Your task to perform on an android device: turn on wifi Image 0: 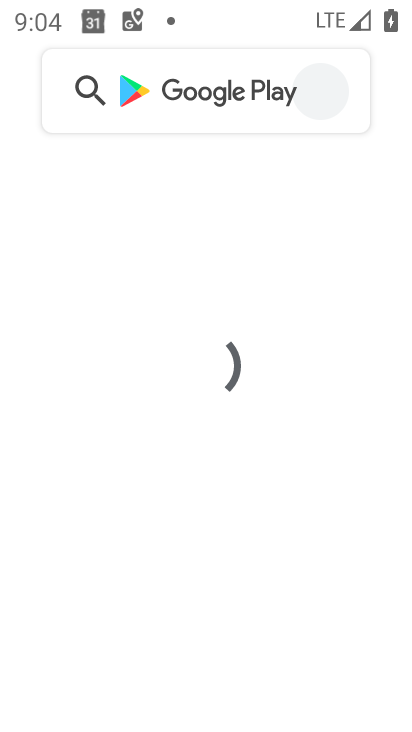
Step 0: drag from (324, 546) to (334, 275)
Your task to perform on an android device: turn on wifi Image 1: 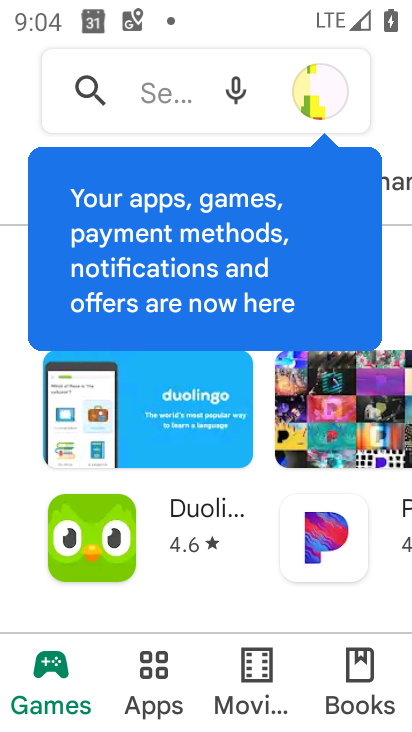
Step 1: press home button
Your task to perform on an android device: turn on wifi Image 2: 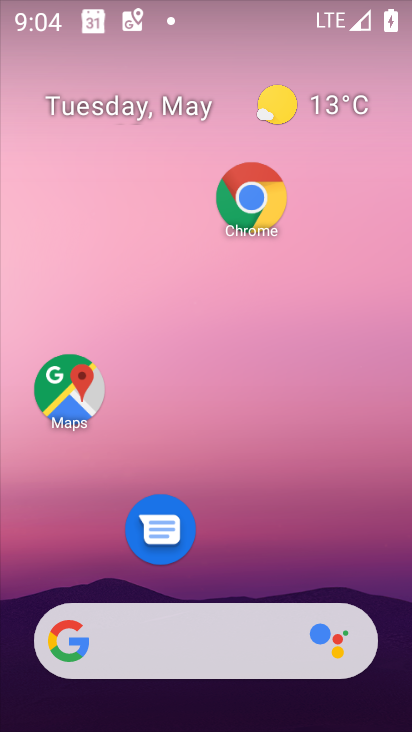
Step 2: drag from (332, 493) to (360, 261)
Your task to perform on an android device: turn on wifi Image 3: 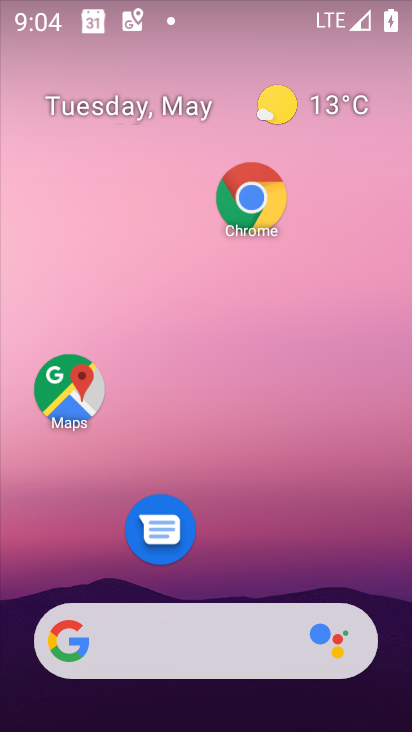
Step 3: drag from (267, 515) to (259, 50)
Your task to perform on an android device: turn on wifi Image 4: 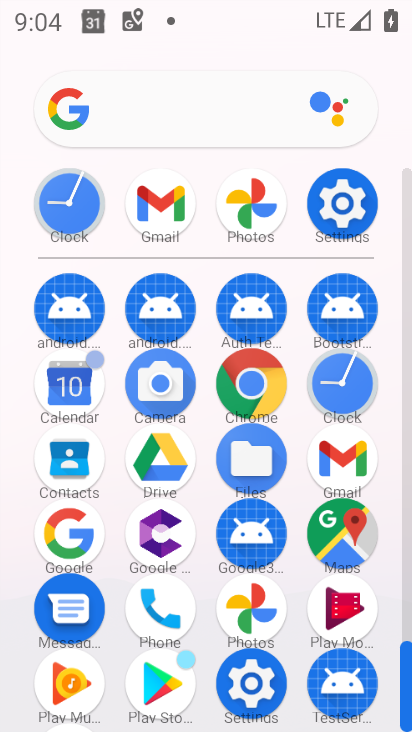
Step 4: click (325, 205)
Your task to perform on an android device: turn on wifi Image 5: 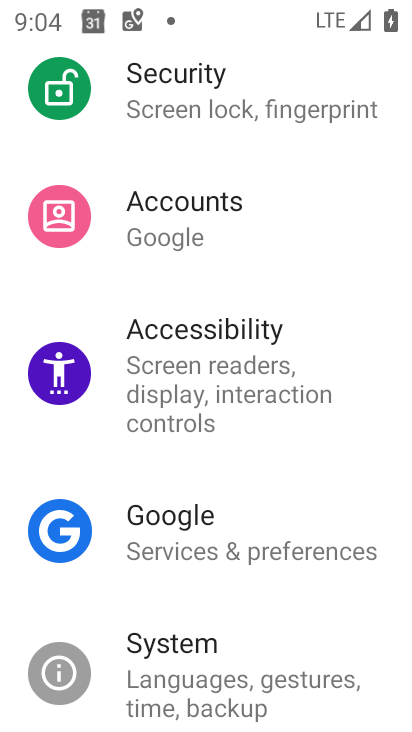
Step 5: drag from (258, 351) to (207, 676)
Your task to perform on an android device: turn on wifi Image 6: 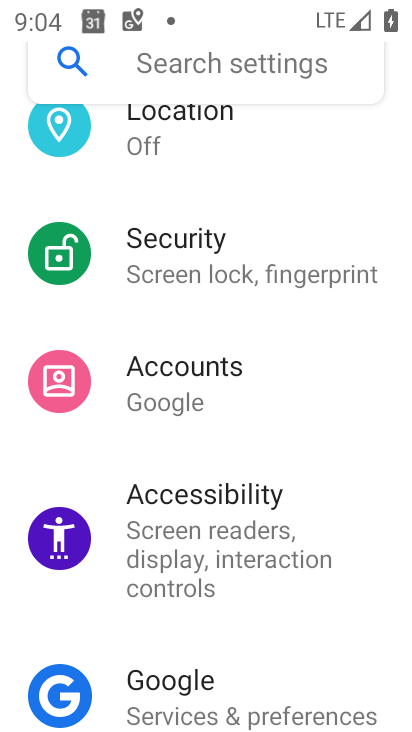
Step 6: drag from (277, 290) to (280, 700)
Your task to perform on an android device: turn on wifi Image 7: 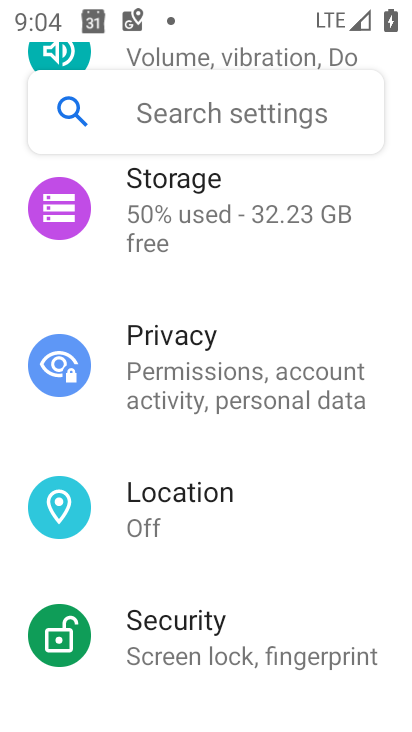
Step 7: drag from (304, 248) to (306, 627)
Your task to perform on an android device: turn on wifi Image 8: 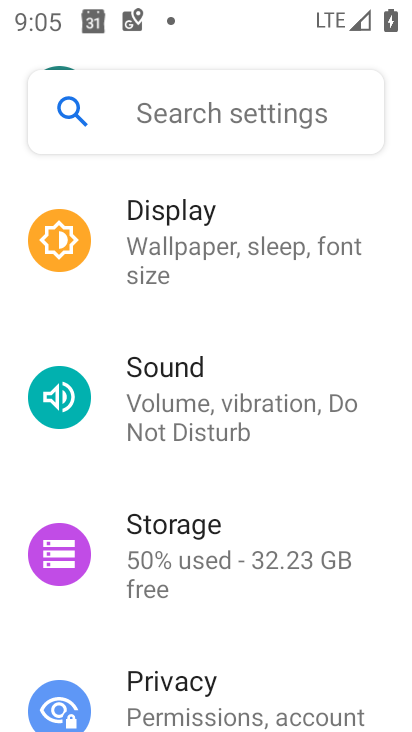
Step 8: drag from (275, 308) to (302, 673)
Your task to perform on an android device: turn on wifi Image 9: 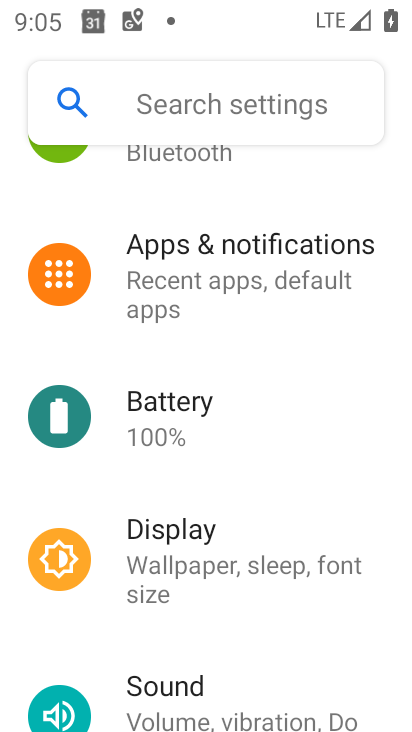
Step 9: drag from (275, 230) to (237, 700)
Your task to perform on an android device: turn on wifi Image 10: 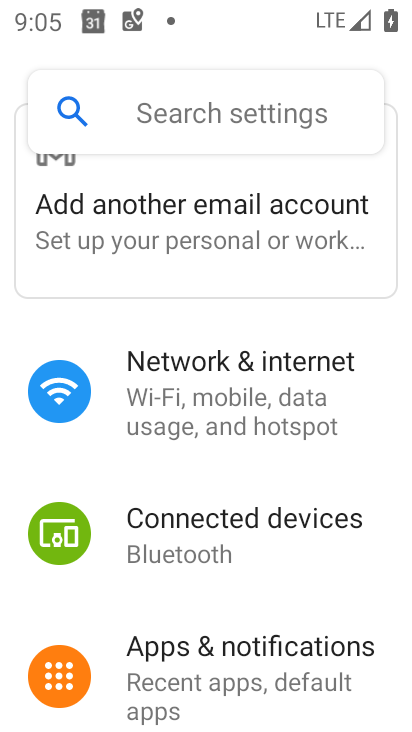
Step 10: click (262, 416)
Your task to perform on an android device: turn on wifi Image 11: 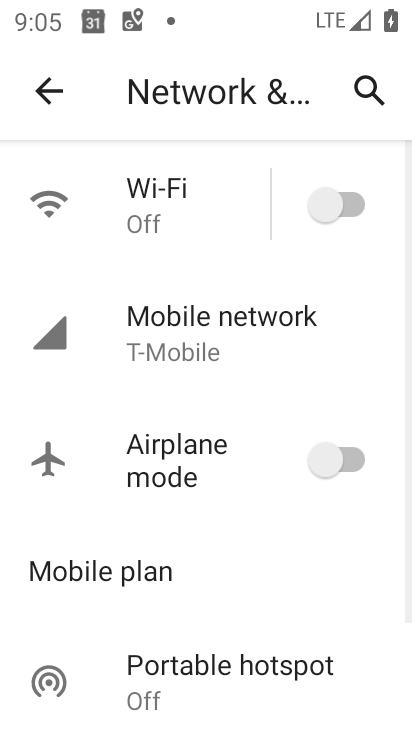
Step 11: click (308, 206)
Your task to perform on an android device: turn on wifi Image 12: 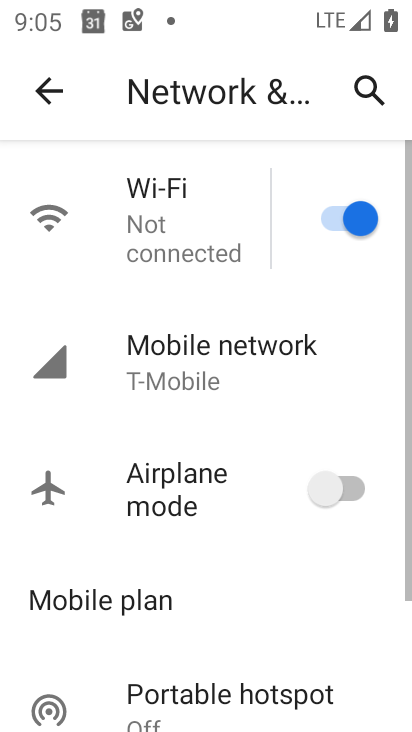
Step 12: task complete